Your task to perform on an android device: When is my next appointment? Image 0: 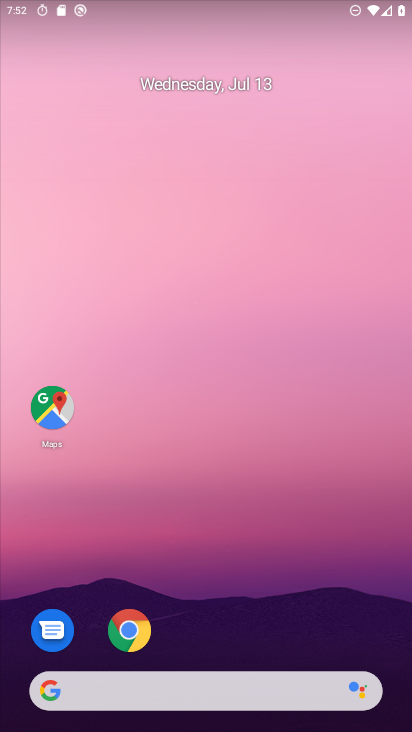
Step 0: drag from (379, 680) to (304, 42)
Your task to perform on an android device: When is my next appointment? Image 1: 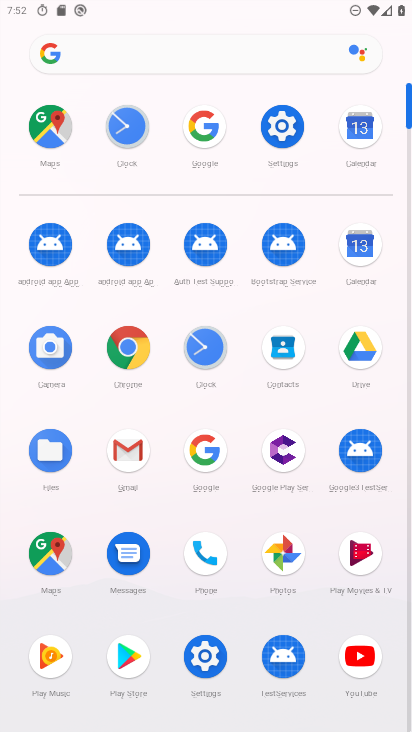
Step 1: click (347, 251)
Your task to perform on an android device: When is my next appointment? Image 2: 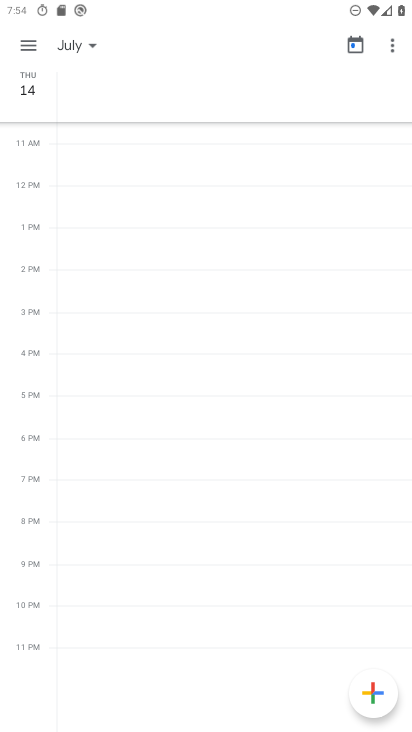
Step 2: task complete